Your task to perform on an android device: turn on improve location accuracy Image 0: 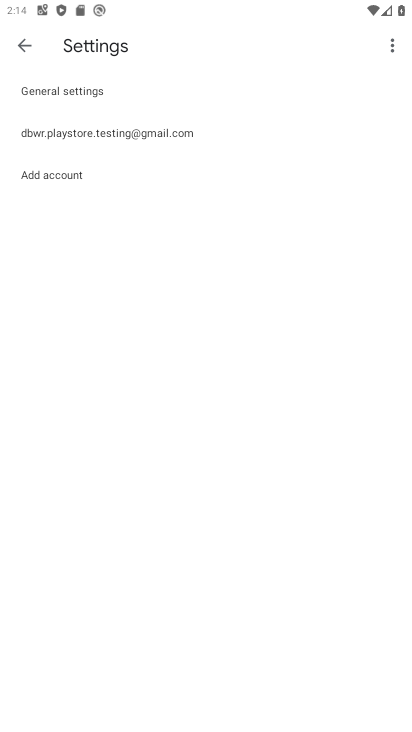
Step 0: drag from (341, 647) to (100, 4)
Your task to perform on an android device: turn on improve location accuracy Image 1: 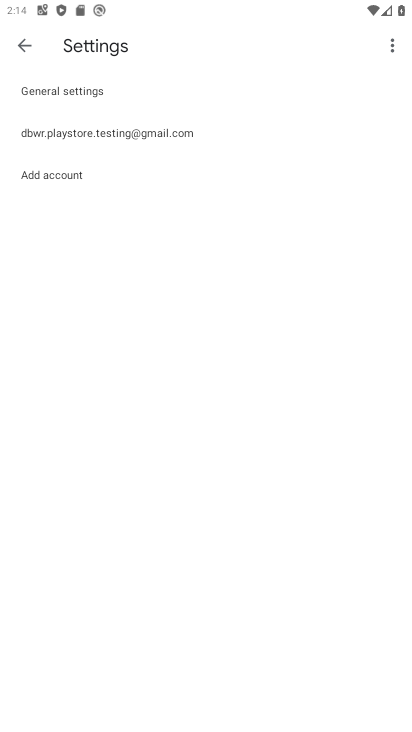
Step 1: click (17, 52)
Your task to perform on an android device: turn on improve location accuracy Image 2: 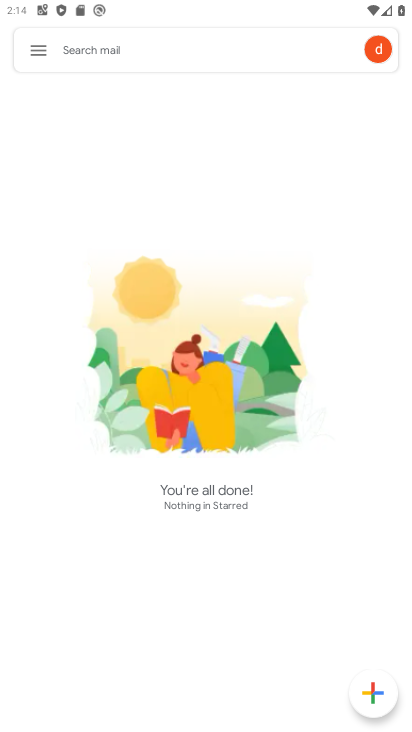
Step 2: drag from (277, 587) to (78, 22)
Your task to perform on an android device: turn on improve location accuracy Image 3: 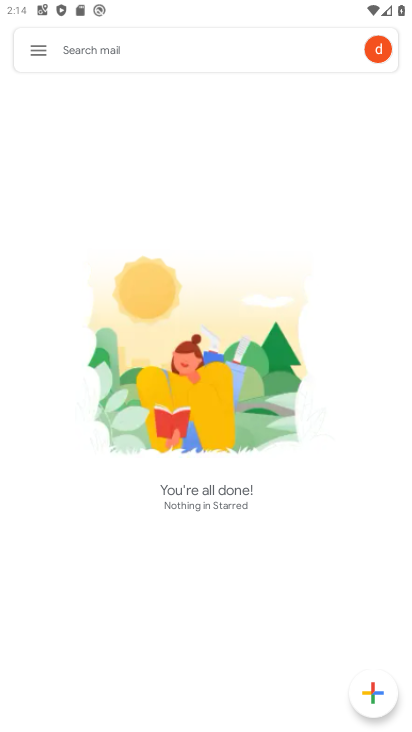
Step 3: press back button
Your task to perform on an android device: turn on improve location accuracy Image 4: 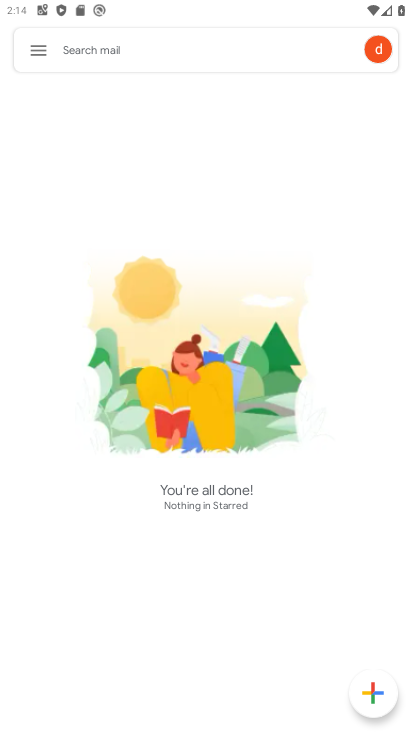
Step 4: press back button
Your task to perform on an android device: turn on improve location accuracy Image 5: 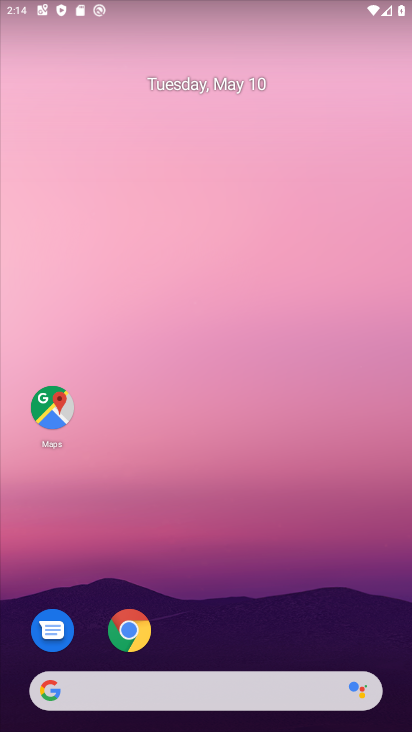
Step 5: drag from (112, 92) to (78, 2)
Your task to perform on an android device: turn on improve location accuracy Image 6: 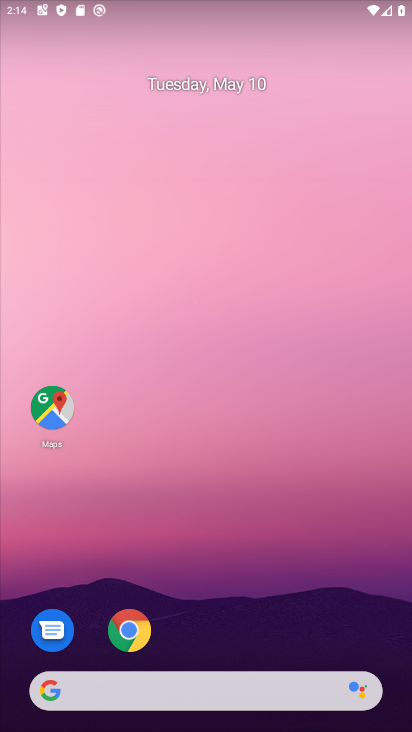
Step 6: drag from (217, 556) to (79, 19)
Your task to perform on an android device: turn on improve location accuracy Image 7: 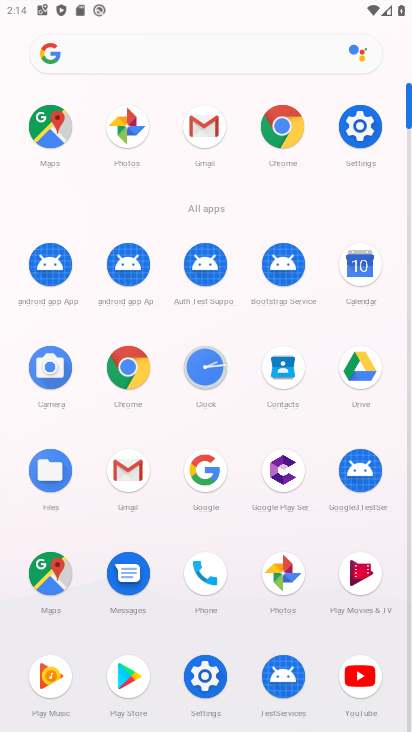
Step 7: drag from (274, 568) to (130, 95)
Your task to perform on an android device: turn on improve location accuracy Image 8: 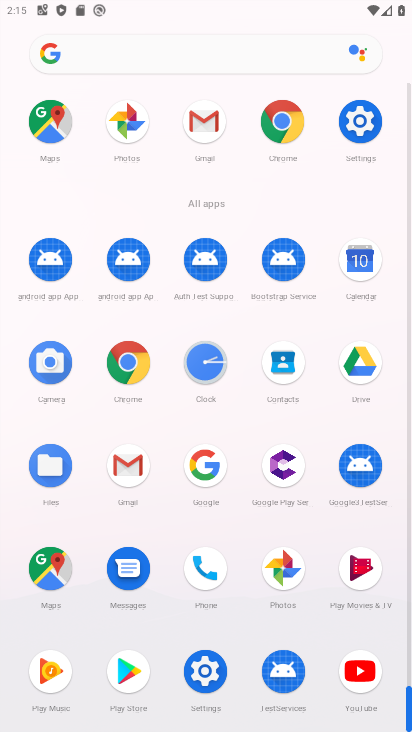
Step 8: click (354, 115)
Your task to perform on an android device: turn on improve location accuracy Image 9: 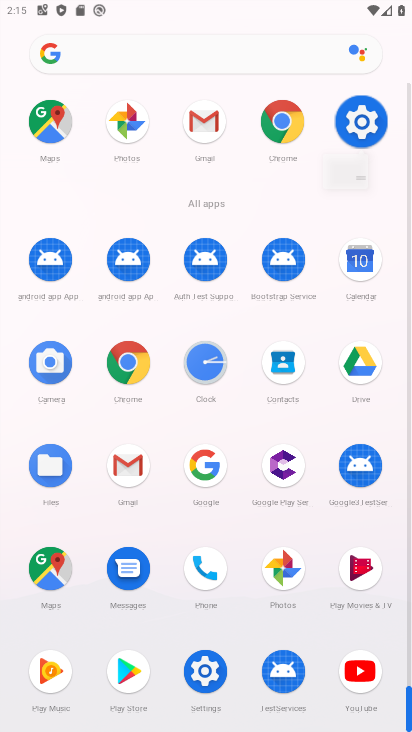
Step 9: click (354, 115)
Your task to perform on an android device: turn on improve location accuracy Image 10: 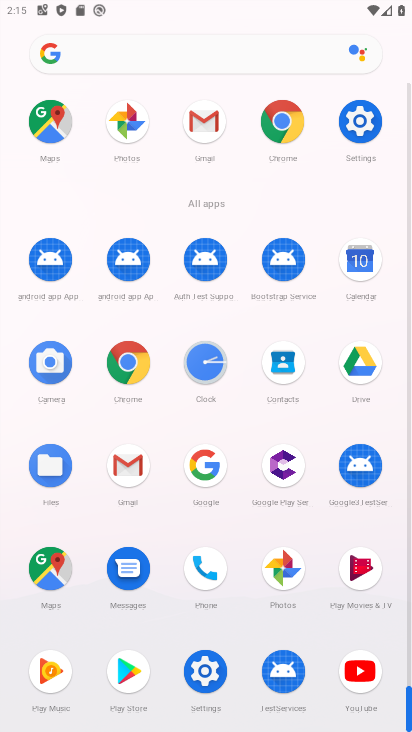
Step 10: click (355, 114)
Your task to perform on an android device: turn on improve location accuracy Image 11: 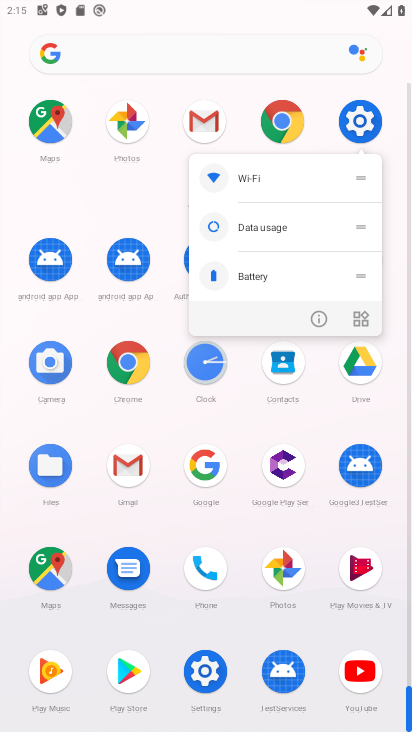
Step 11: click (357, 112)
Your task to perform on an android device: turn on improve location accuracy Image 12: 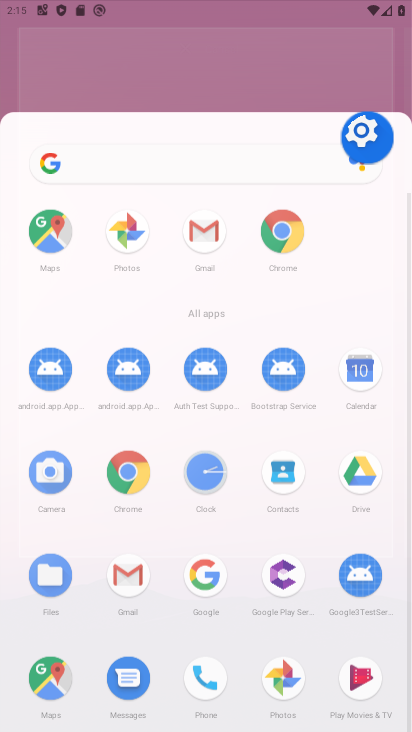
Step 12: click (364, 129)
Your task to perform on an android device: turn on improve location accuracy Image 13: 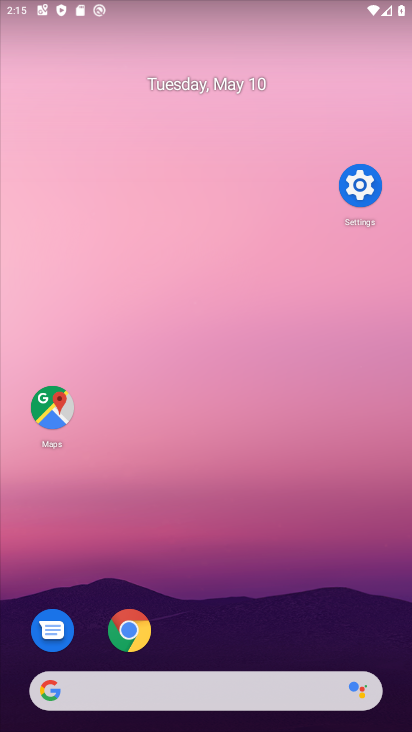
Step 13: click (368, 190)
Your task to perform on an android device: turn on improve location accuracy Image 14: 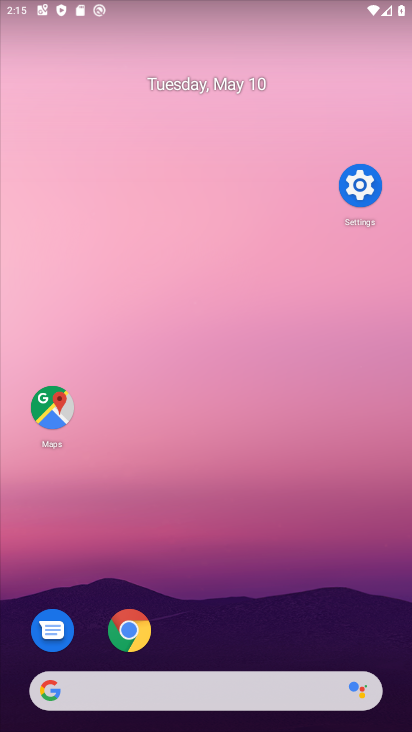
Step 14: click (367, 190)
Your task to perform on an android device: turn on improve location accuracy Image 15: 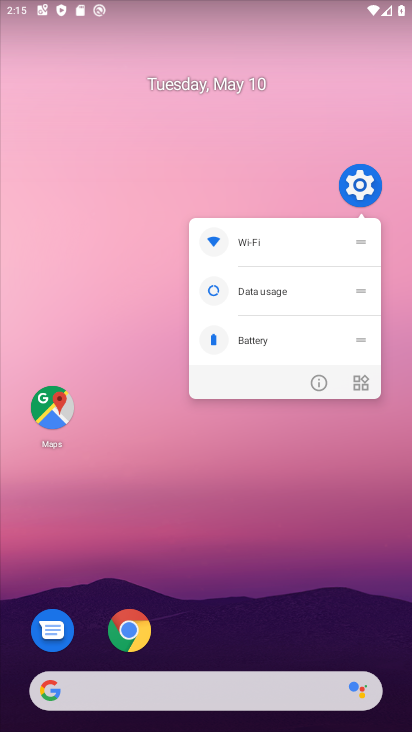
Step 15: click (367, 190)
Your task to perform on an android device: turn on improve location accuracy Image 16: 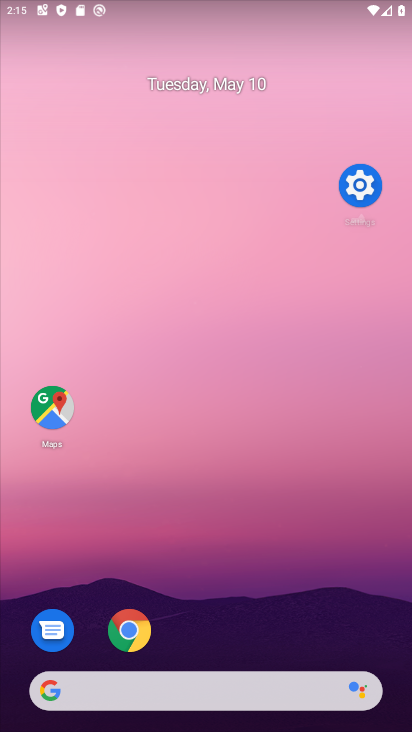
Step 16: click (366, 190)
Your task to perform on an android device: turn on improve location accuracy Image 17: 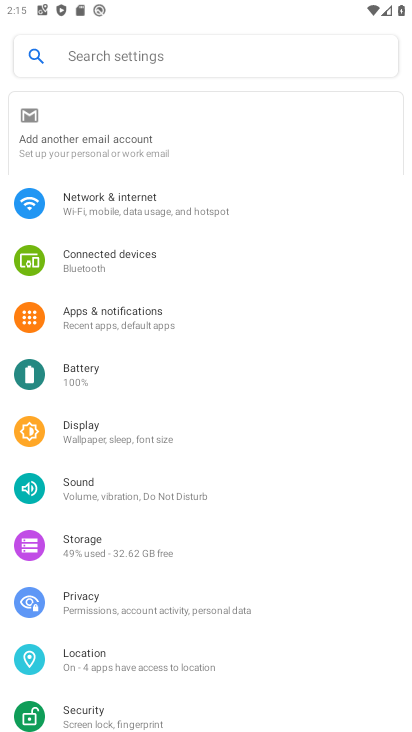
Step 17: click (361, 191)
Your task to perform on an android device: turn on improve location accuracy Image 18: 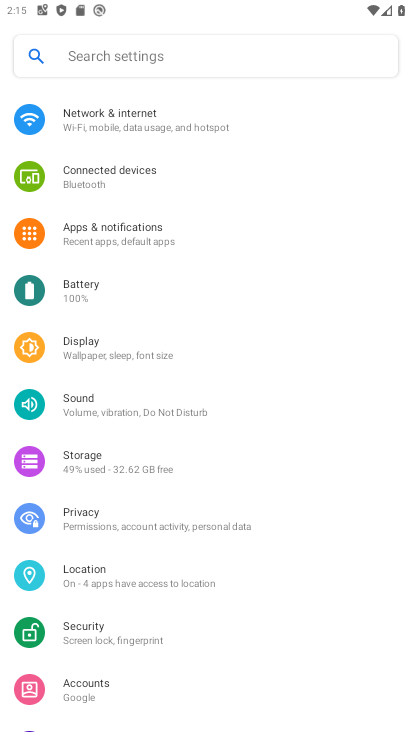
Step 18: click (361, 191)
Your task to perform on an android device: turn on improve location accuracy Image 19: 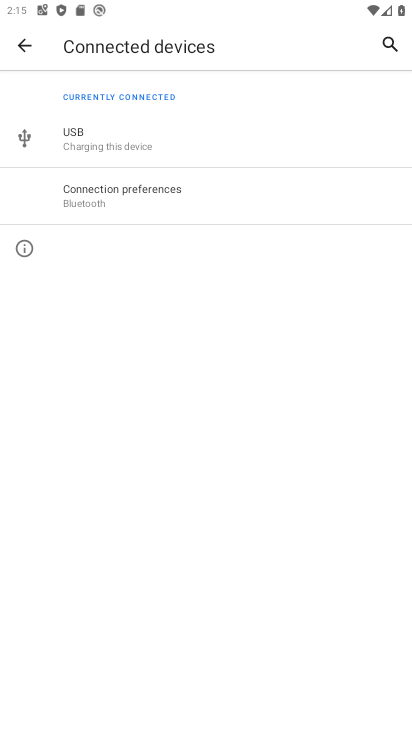
Step 19: click (28, 49)
Your task to perform on an android device: turn on improve location accuracy Image 20: 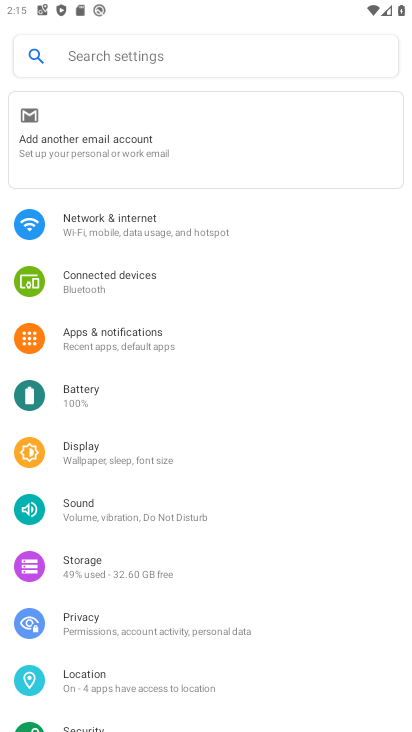
Step 20: click (102, 684)
Your task to perform on an android device: turn on improve location accuracy Image 21: 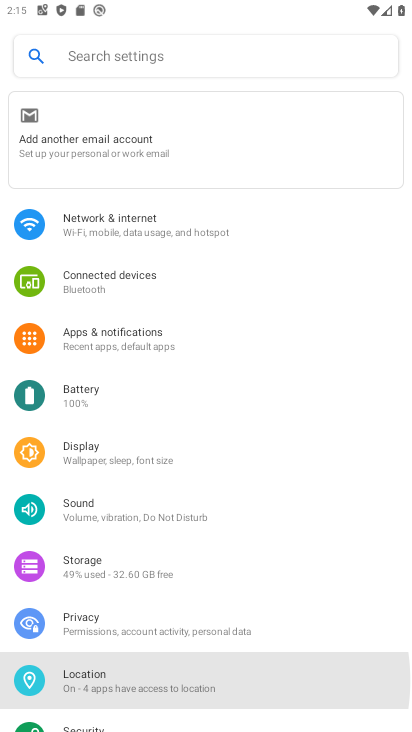
Step 21: click (99, 669)
Your task to perform on an android device: turn on improve location accuracy Image 22: 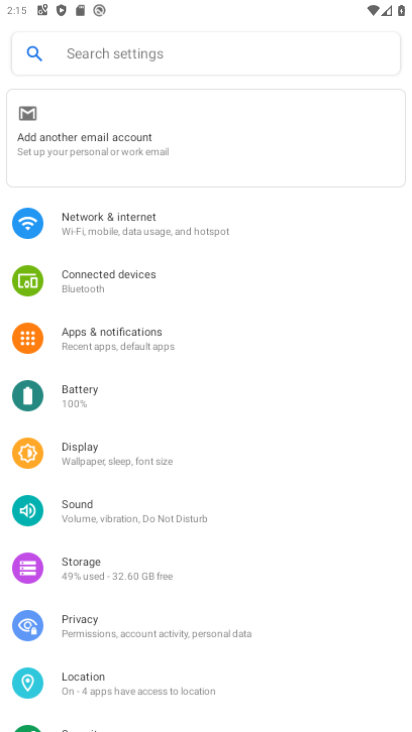
Step 22: click (100, 674)
Your task to perform on an android device: turn on improve location accuracy Image 23: 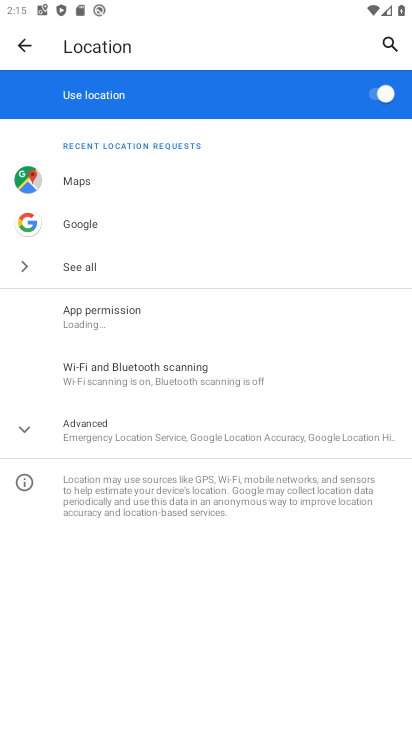
Step 23: click (85, 321)
Your task to perform on an android device: turn on improve location accuracy Image 24: 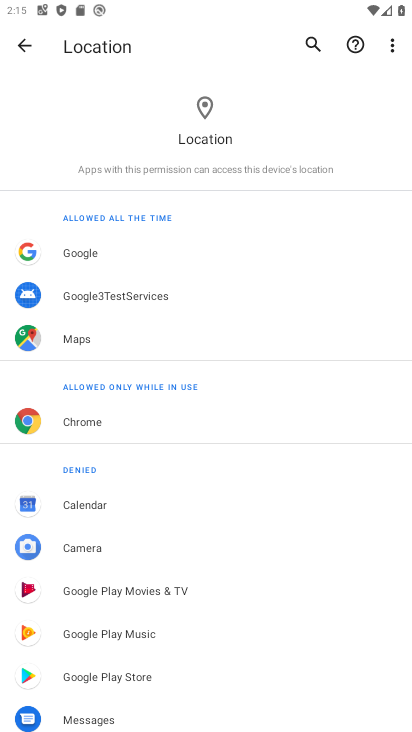
Step 24: click (23, 46)
Your task to perform on an android device: turn on improve location accuracy Image 25: 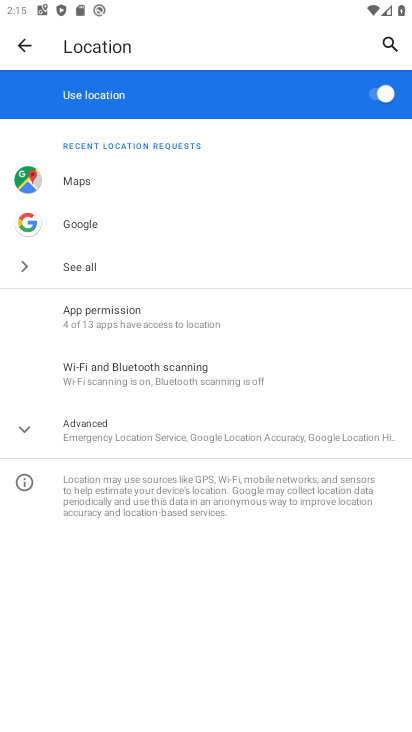
Step 25: click (98, 429)
Your task to perform on an android device: turn on improve location accuracy Image 26: 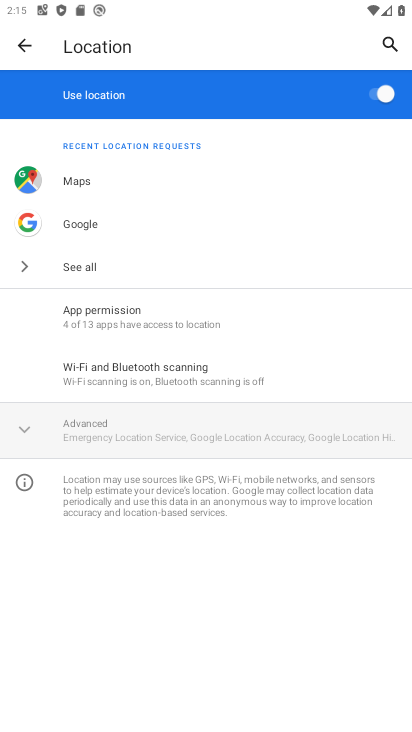
Step 26: click (98, 429)
Your task to perform on an android device: turn on improve location accuracy Image 27: 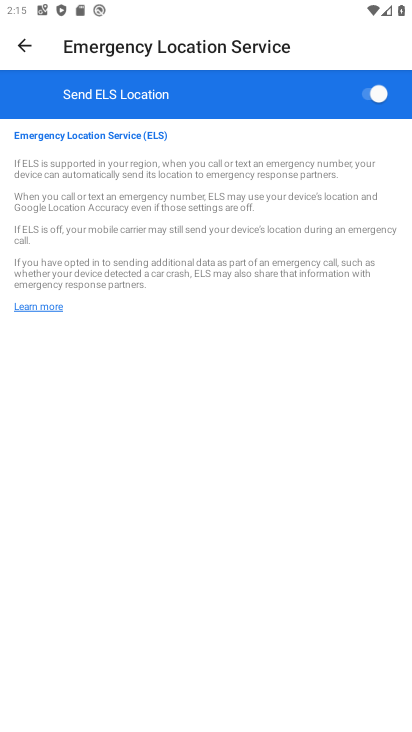
Step 27: click (22, 40)
Your task to perform on an android device: turn on improve location accuracy Image 28: 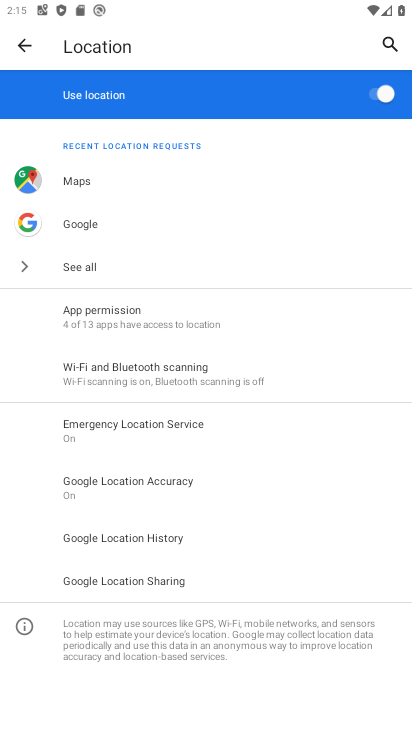
Step 28: click (141, 486)
Your task to perform on an android device: turn on improve location accuracy Image 29: 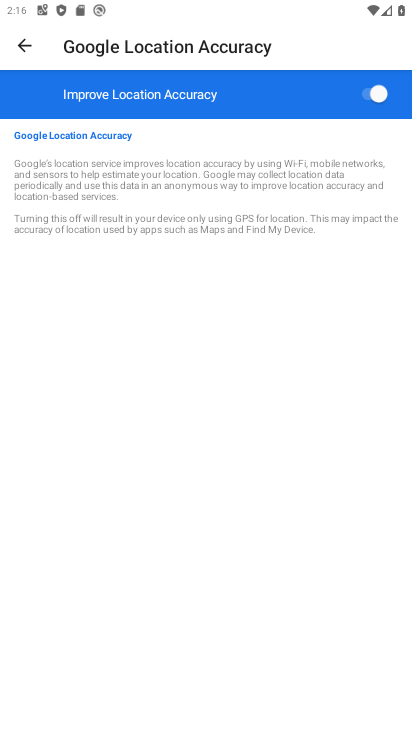
Step 29: task complete